Your task to perform on an android device: toggle airplane mode Image 0: 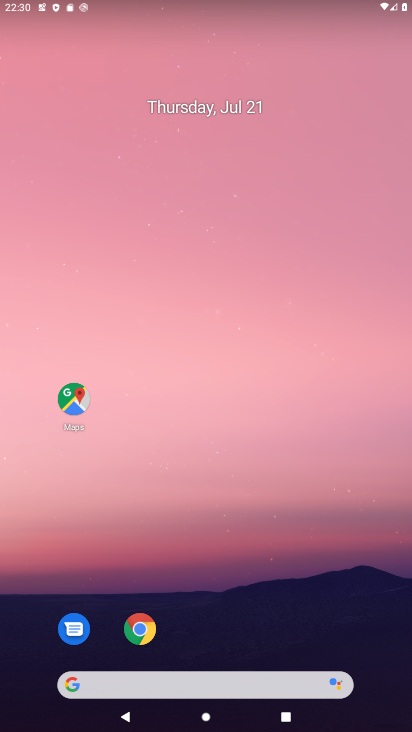
Step 0: press home button
Your task to perform on an android device: toggle airplane mode Image 1: 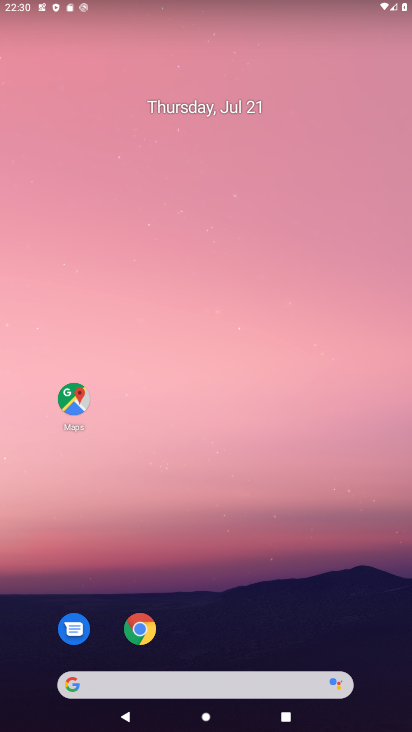
Step 1: drag from (204, 4) to (272, 560)
Your task to perform on an android device: toggle airplane mode Image 2: 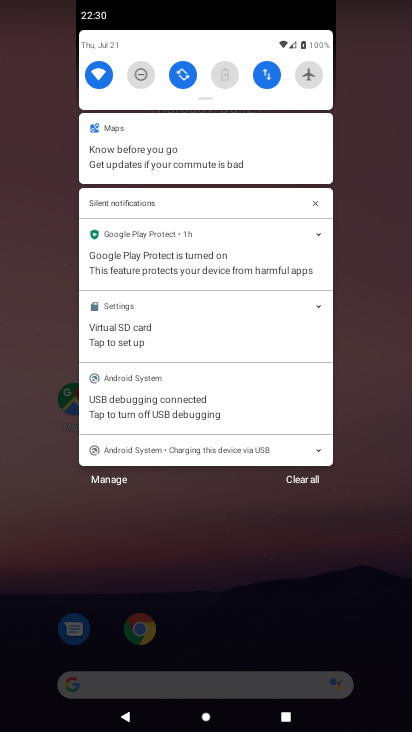
Step 2: click (311, 75)
Your task to perform on an android device: toggle airplane mode Image 3: 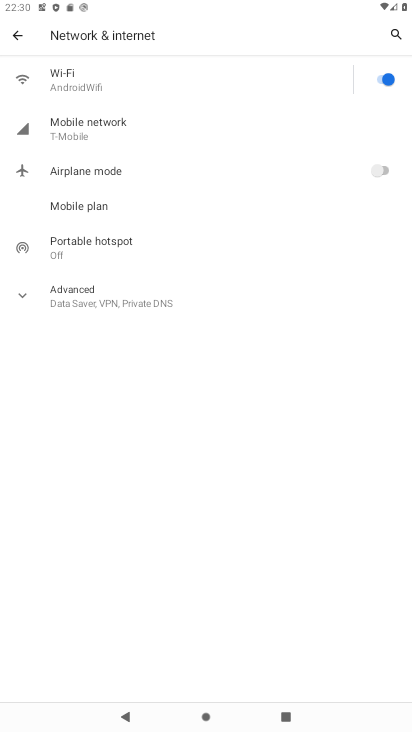
Step 3: click (90, 170)
Your task to perform on an android device: toggle airplane mode Image 4: 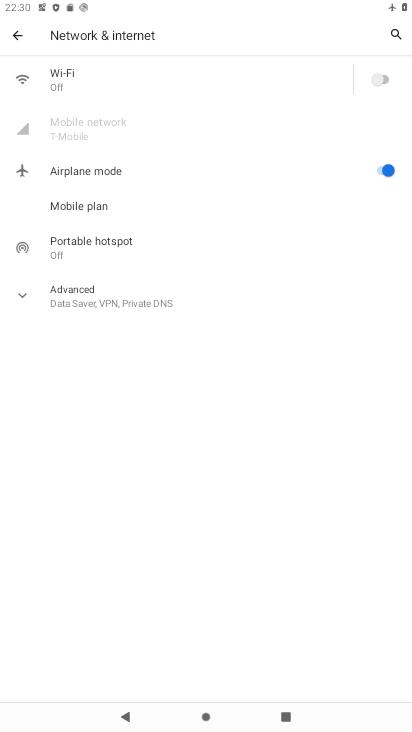
Step 4: task complete